Your task to perform on an android device: Go to Google Image 0: 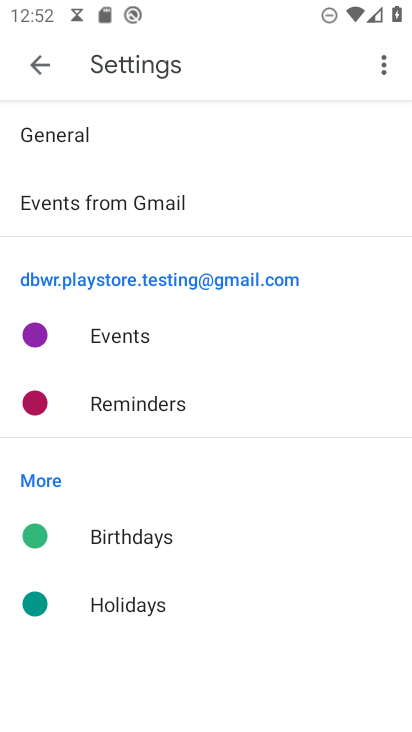
Step 0: press home button
Your task to perform on an android device: Go to Google Image 1: 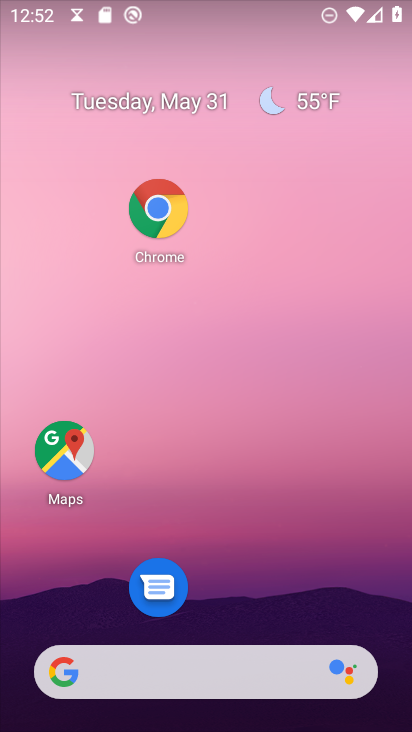
Step 1: drag from (185, 549) to (142, 361)
Your task to perform on an android device: Go to Google Image 2: 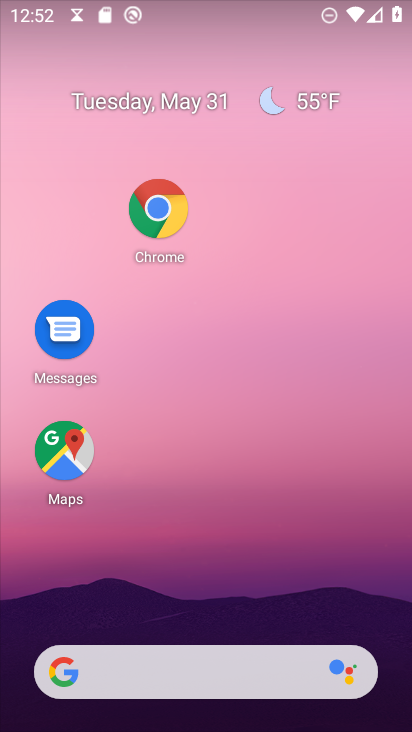
Step 2: drag from (224, 536) to (249, 125)
Your task to perform on an android device: Go to Google Image 3: 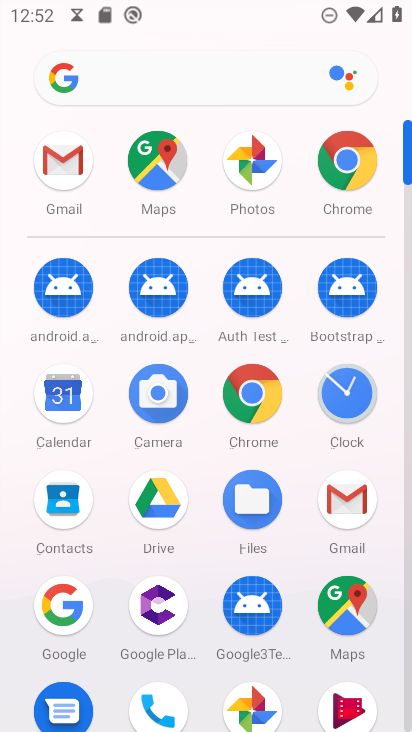
Step 3: click (51, 626)
Your task to perform on an android device: Go to Google Image 4: 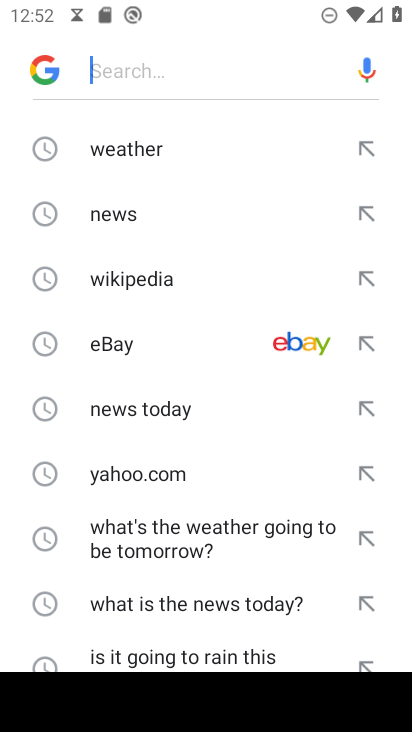
Step 4: press back button
Your task to perform on an android device: Go to Google Image 5: 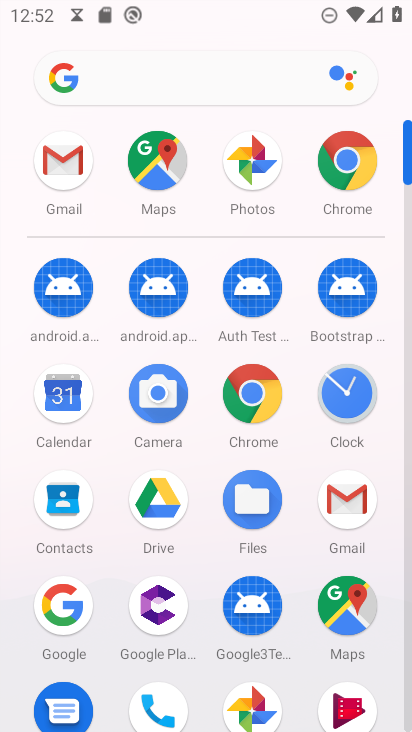
Step 5: click (54, 610)
Your task to perform on an android device: Go to Google Image 6: 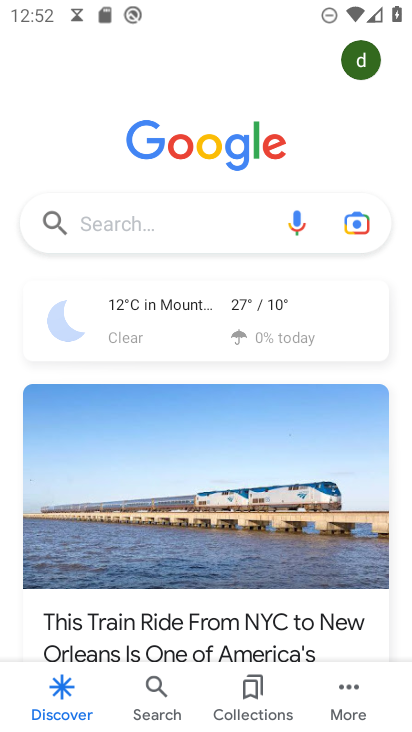
Step 6: task complete